Your task to perform on an android device: turn on data saver in the chrome app Image 0: 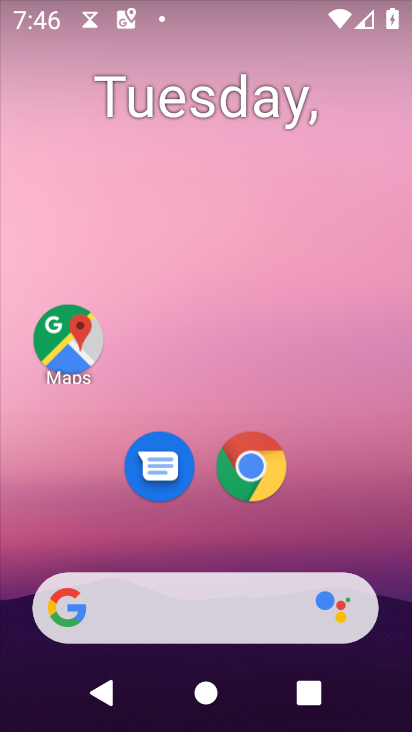
Step 0: press home button
Your task to perform on an android device: turn on data saver in the chrome app Image 1: 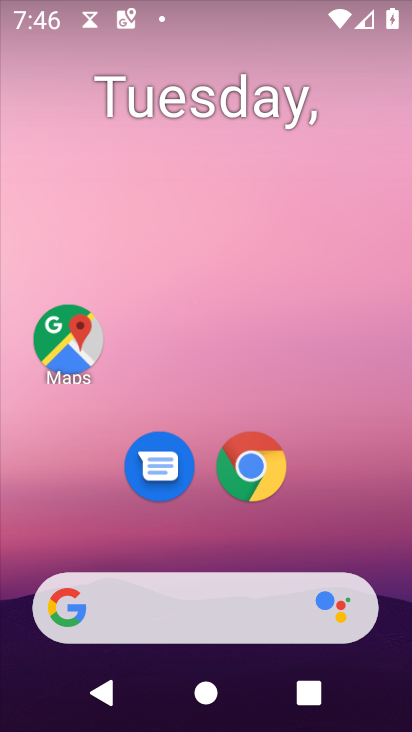
Step 1: click (233, 466)
Your task to perform on an android device: turn on data saver in the chrome app Image 2: 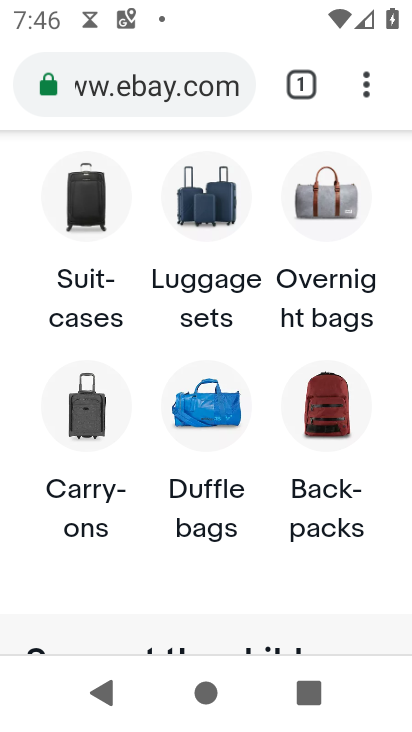
Step 2: click (358, 96)
Your task to perform on an android device: turn on data saver in the chrome app Image 3: 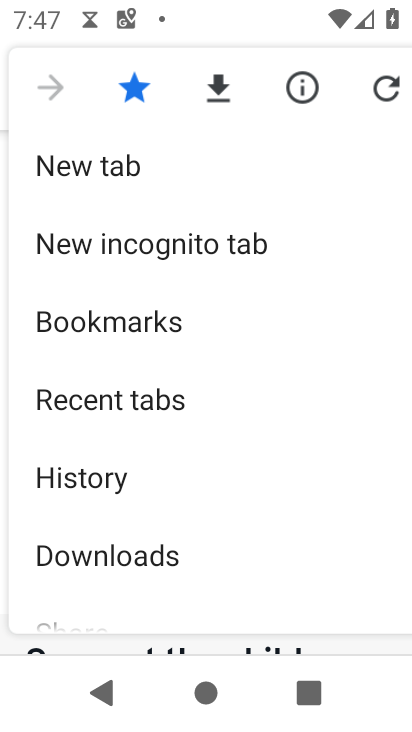
Step 3: drag from (209, 571) to (207, 182)
Your task to perform on an android device: turn on data saver in the chrome app Image 4: 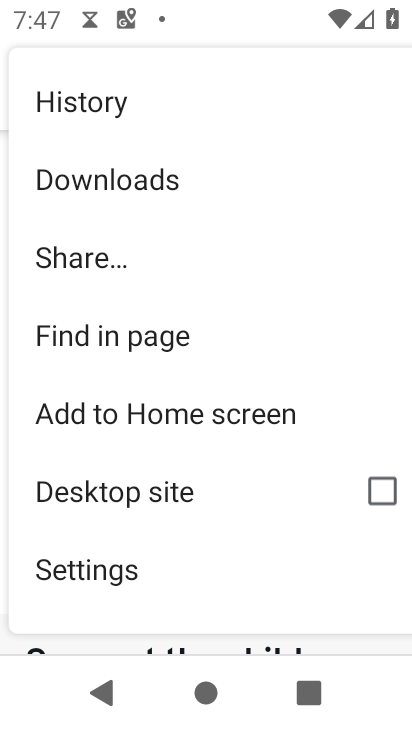
Step 4: click (167, 564)
Your task to perform on an android device: turn on data saver in the chrome app Image 5: 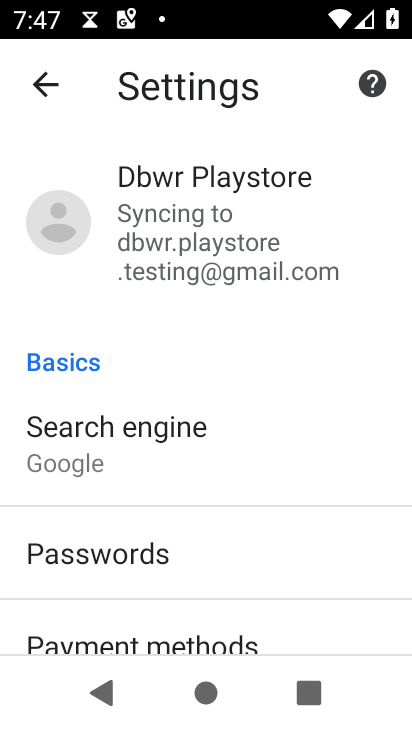
Step 5: drag from (271, 614) to (251, 198)
Your task to perform on an android device: turn on data saver in the chrome app Image 6: 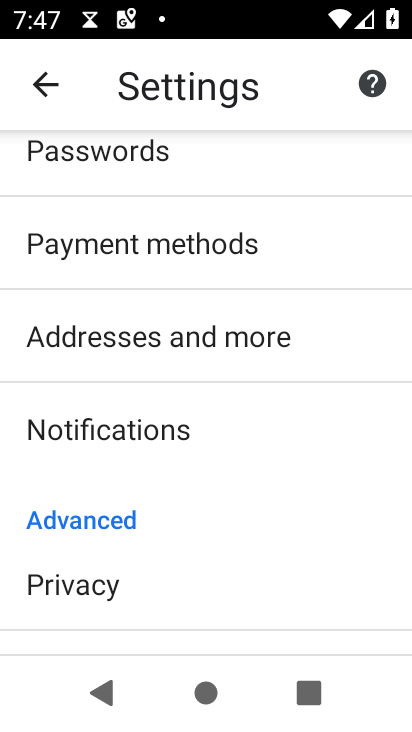
Step 6: drag from (216, 599) to (215, 226)
Your task to perform on an android device: turn on data saver in the chrome app Image 7: 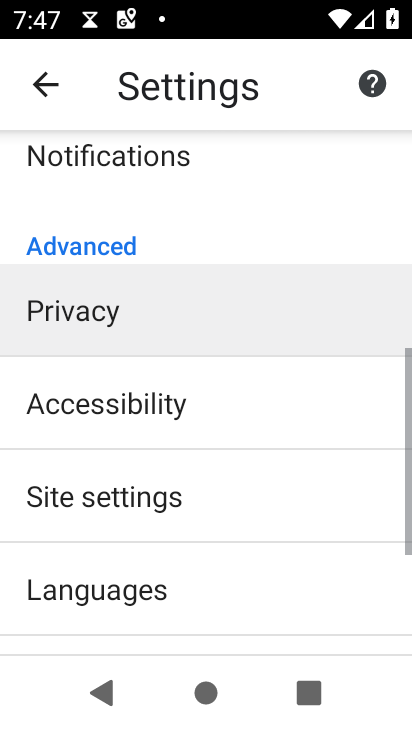
Step 7: click (212, 169)
Your task to perform on an android device: turn on data saver in the chrome app Image 8: 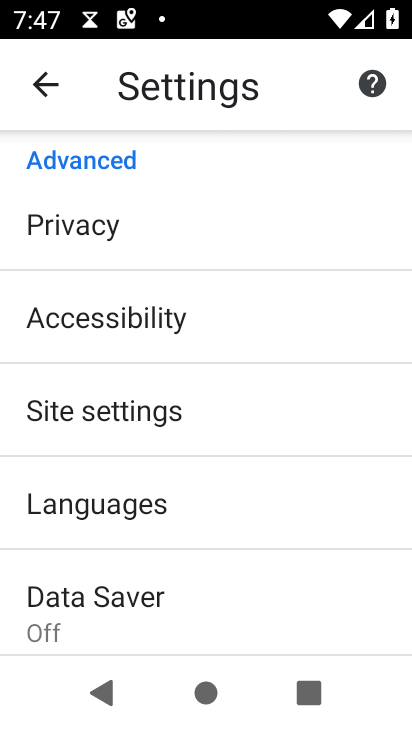
Step 8: click (182, 605)
Your task to perform on an android device: turn on data saver in the chrome app Image 9: 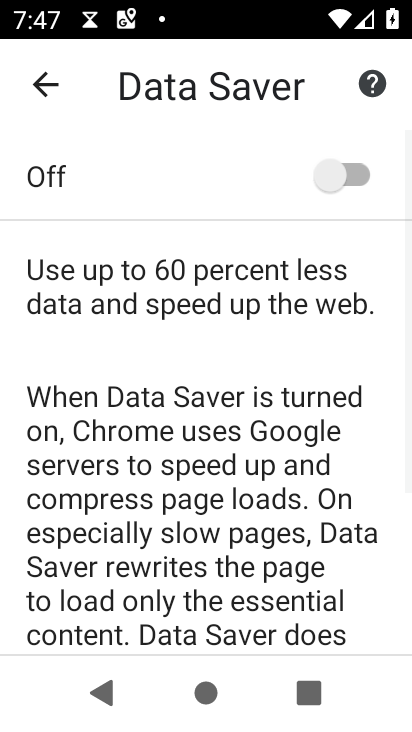
Step 9: click (357, 170)
Your task to perform on an android device: turn on data saver in the chrome app Image 10: 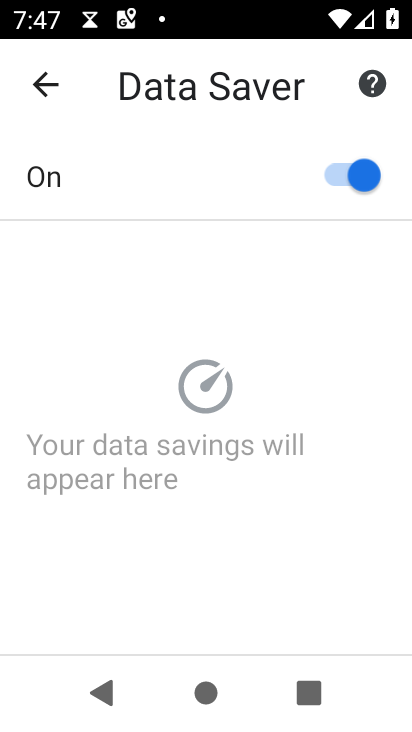
Step 10: task complete